Your task to perform on an android device: Open Wikipedia Image 0: 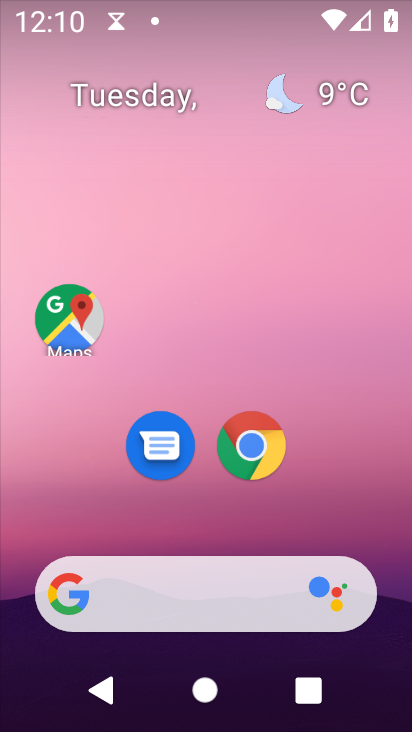
Step 0: drag from (314, 605) to (284, 21)
Your task to perform on an android device: Open Wikipedia Image 1: 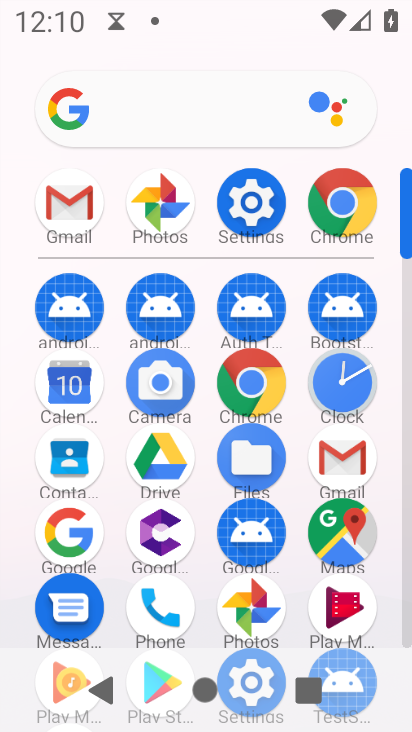
Step 1: click (251, 382)
Your task to perform on an android device: Open Wikipedia Image 2: 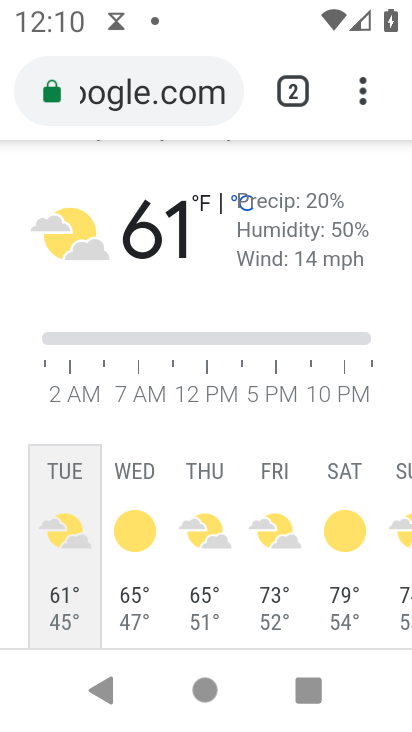
Step 2: click (145, 91)
Your task to perform on an android device: Open Wikipedia Image 3: 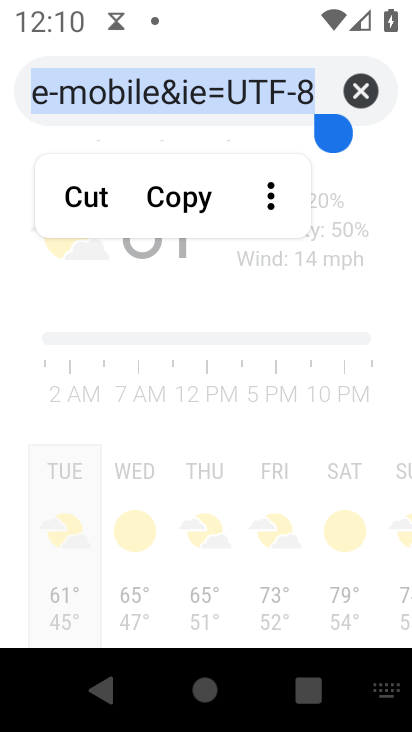
Step 3: click (363, 90)
Your task to perform on an android device: Open Wikipedia Image 4: 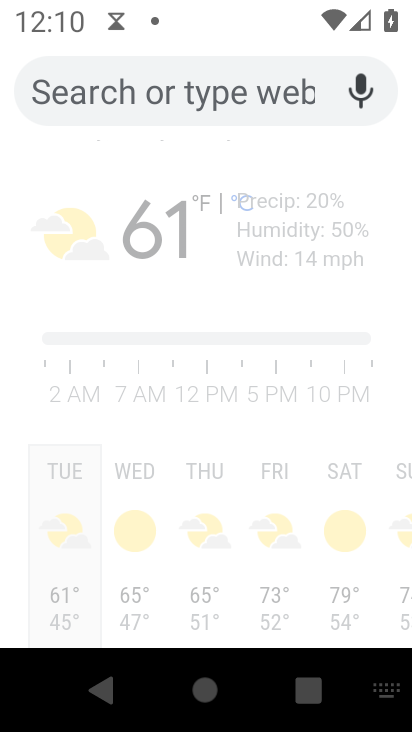
Step 4: type "wikipedia"
Your task to perform on an android device: Open Wikipedia Image 5: 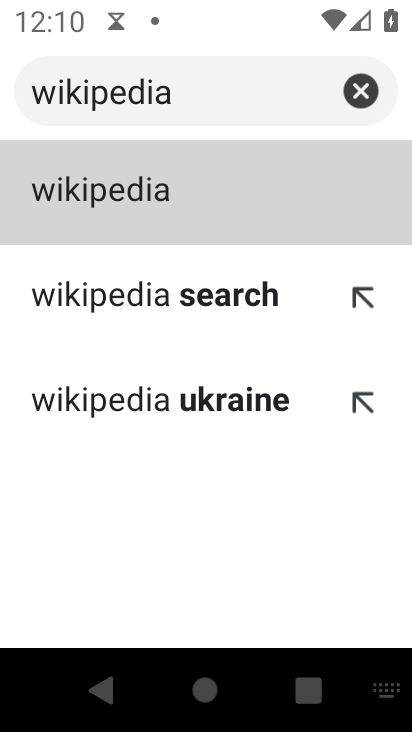
Step 5: click (254, 208)
Your task to perform on an android device: Open Wikipedia Image 6: 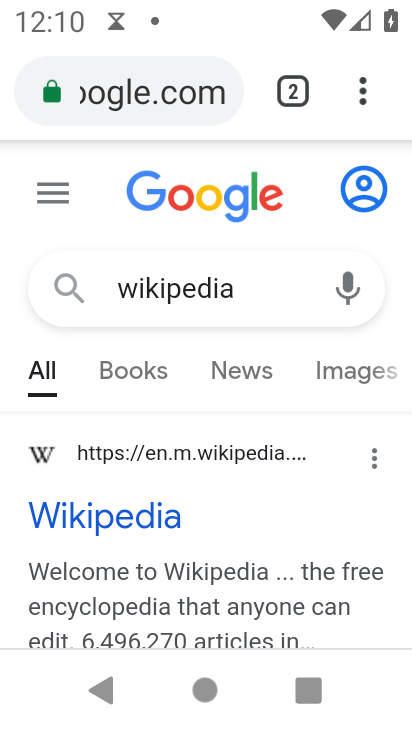
Step 6: task complete